Your task to perform on an android device: turn off translation in the chrome app Image 0: 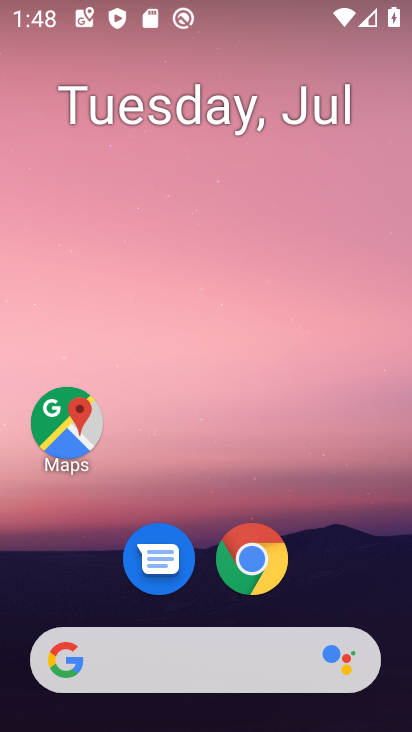
Step 0: drag from (336, 577) to (363, 112)
Your task to perform on an android device: turn off translation in the chrome app Image 1: 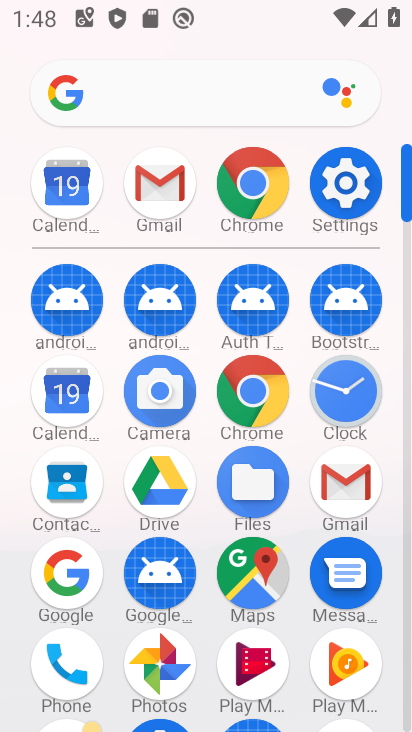
Step 1: click (253, 389)
Your task to perform on an android device: turn off translation in the chrome app Image 2: 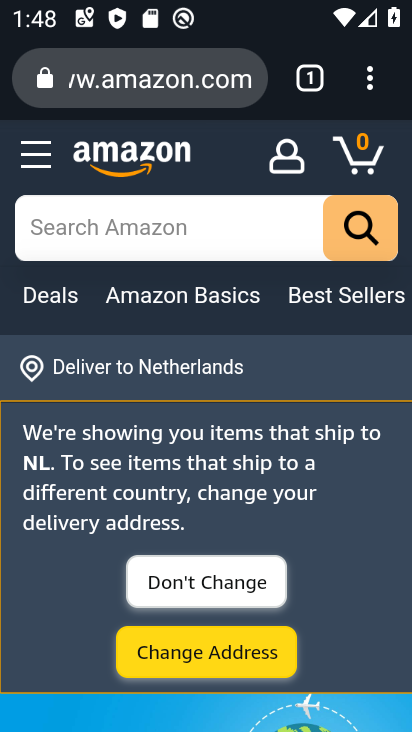
Step 2: click (370, 92)
Your task to perform on an android device: turn off translation in the chrome app Image 3: 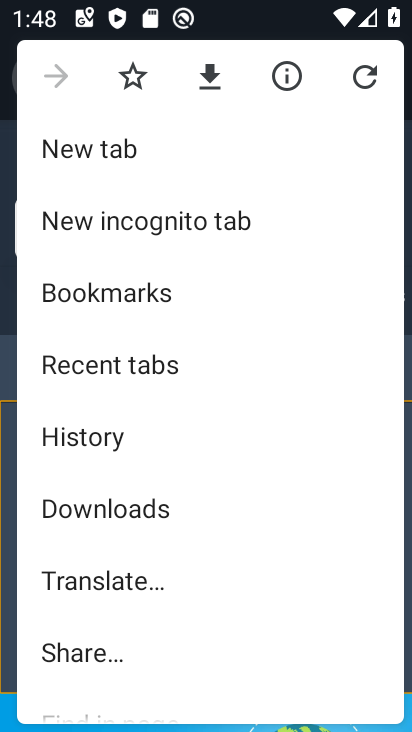
Step 3: drag from (314, 493) to (328, 389)
Your task to perform on an android device: turn off translation in the chrome app Image 4: 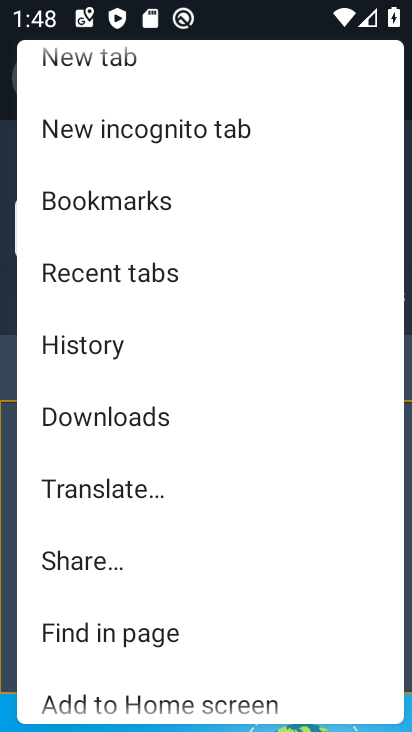
Step 4: drag from (323, 535) to (332, 449)
Your task to perform on an android device: turn off translation in the chrome app Image 5: 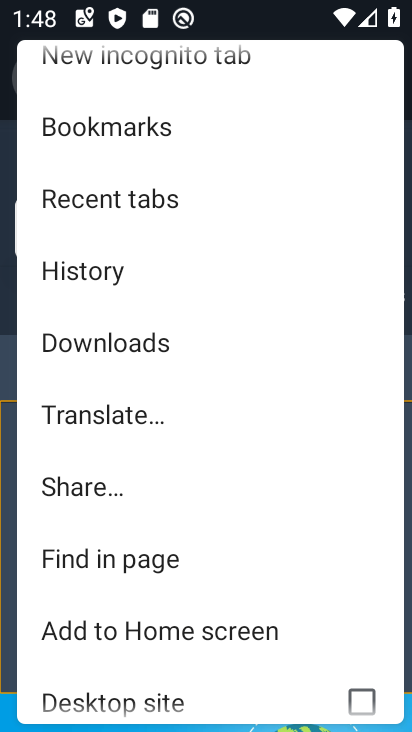
Step 5: drag from (334, 539) to (346, 353)
Your task to perform on an android device: turn off translation in the chrome app Image 6: 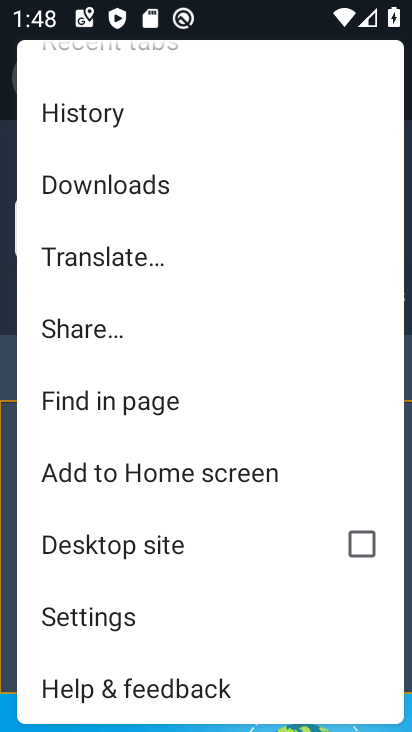
Step 6: click (182, 629)
Your task to perform on an android device: turn off translation in the chrome app Image 7: 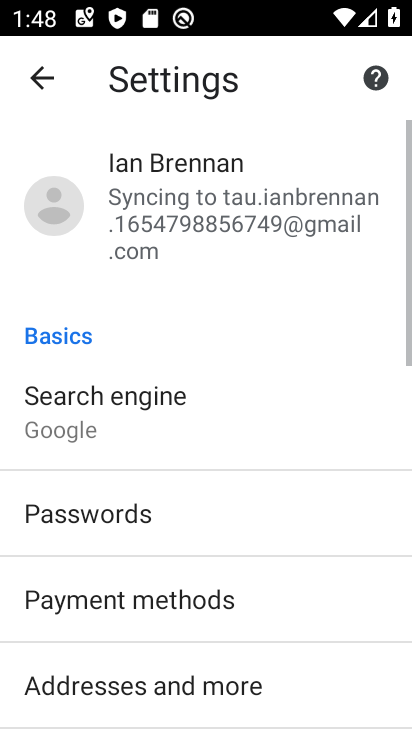
Step 7: drag from (348, 613) to (348, 522)
Your task to perform on an android device: turn off translation in the chrome app Image 8: 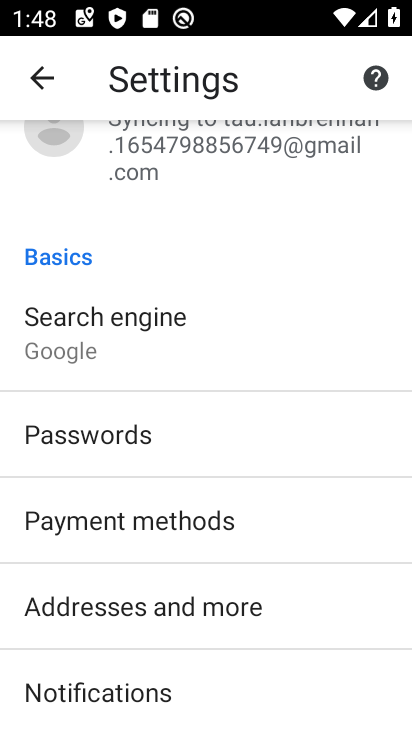
Step 8: drag from (350, 601) to (354, 513)
Your task to perform on an android device: turn off translation in the chrome app Image 9: 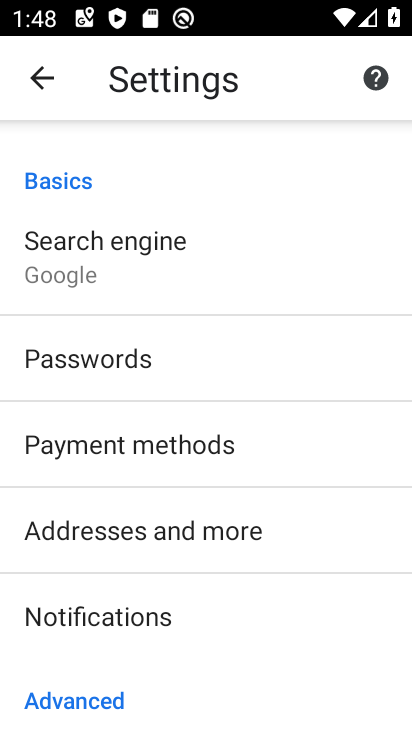
Step 9: drag from (344, 587) to (350, 476)
Your task to perform on an android device: turn off translation in the chrome app Image 10: 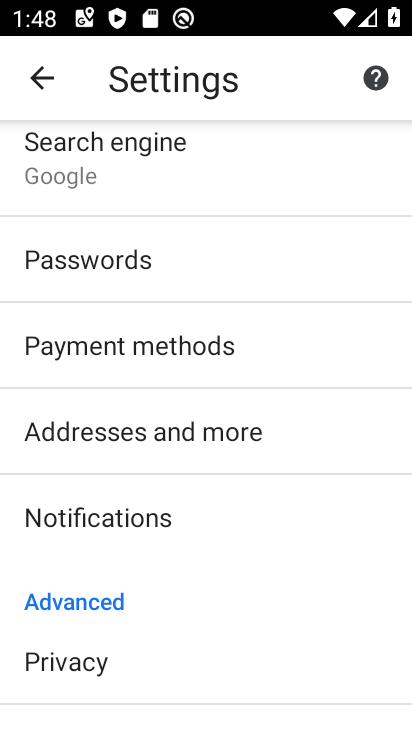
Step 10: drag from (326, 596) to (325, 472)
Your task to perform on an android device: turn off translation in the chrome app Image 11: 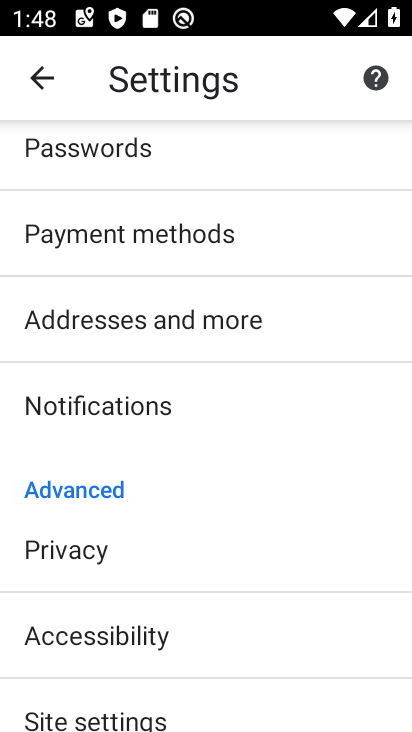
Step 11: drag from (332, 636) to (342, 506)
Your task to perform on an android device: turn off translation in the chrome app Image 12: 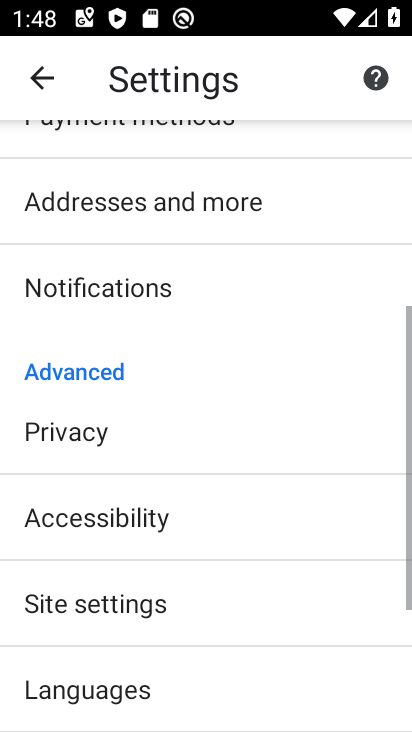
Step 12: drag from (321, 613) to (327, 501)
Your task to perform on an android device: turn off translation in the chrome app Image 13: 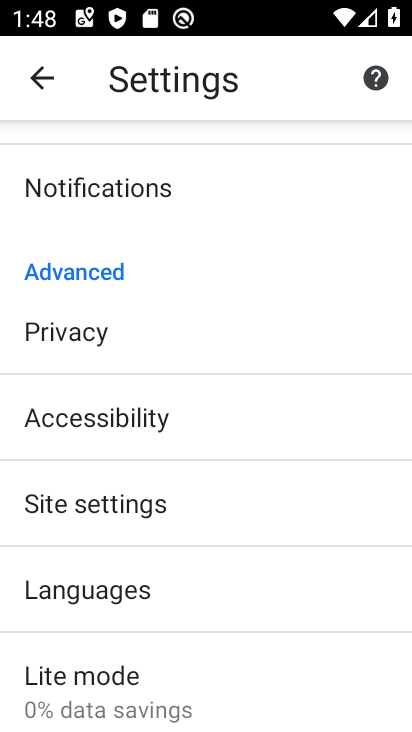
Step 13: click (303, 613)
Your task to perform on an android device: turn off translation in the chrome app Image 14: 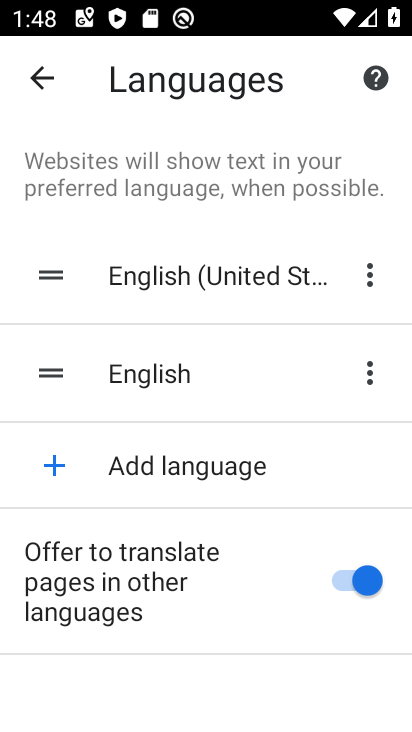
Step 14: click (335, 596)
Your task to perform on an android device: turn off translation in the chrome app Image 15: 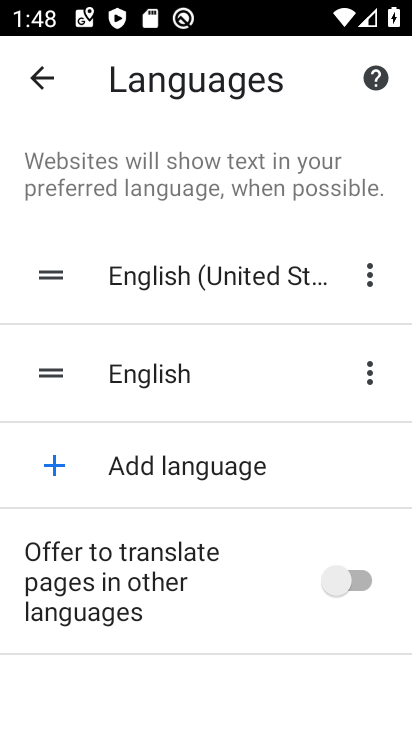
Step 15: task complete